Your task to perform on an android device: Open location settings Image 0: 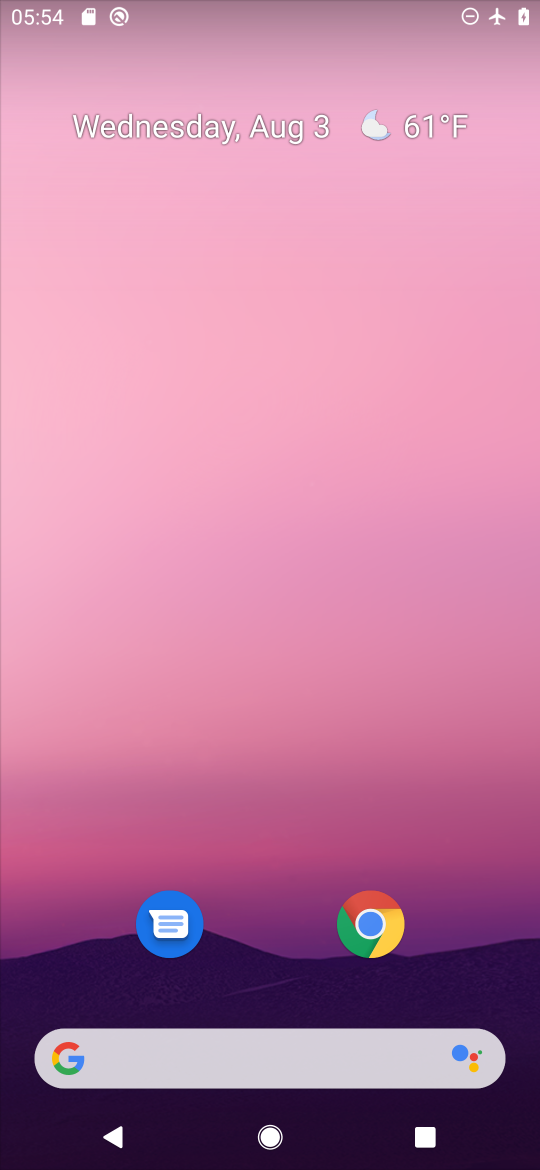
Step 0: drag from (285, 959) to (251, 200)
Your task to perform on an android device: Open location settings Image 1: 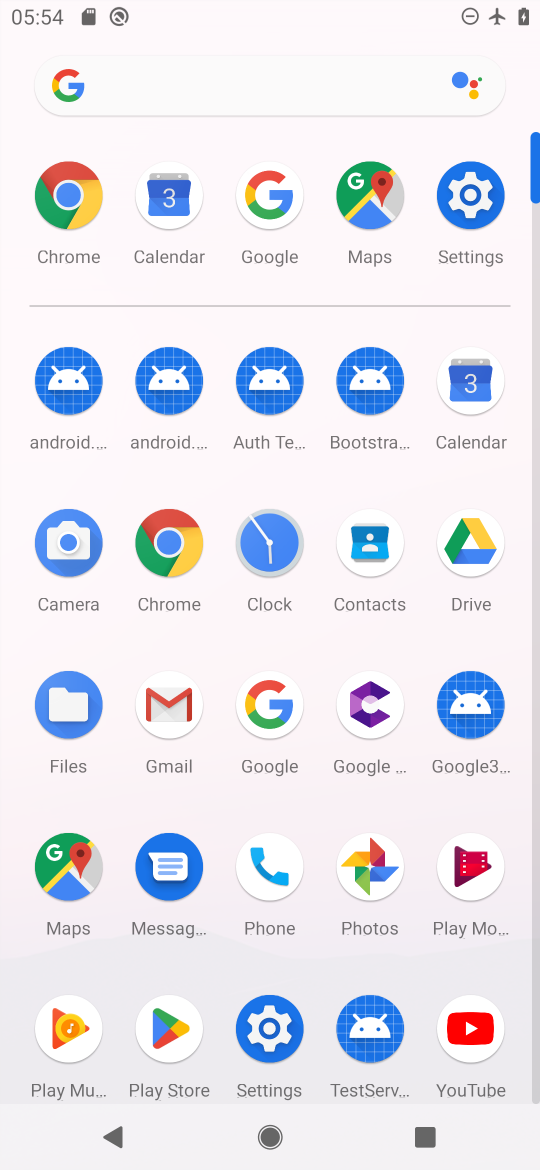
Step 1: click (503, 201)
Your task to perform on an android device: Open location settings Image 2: 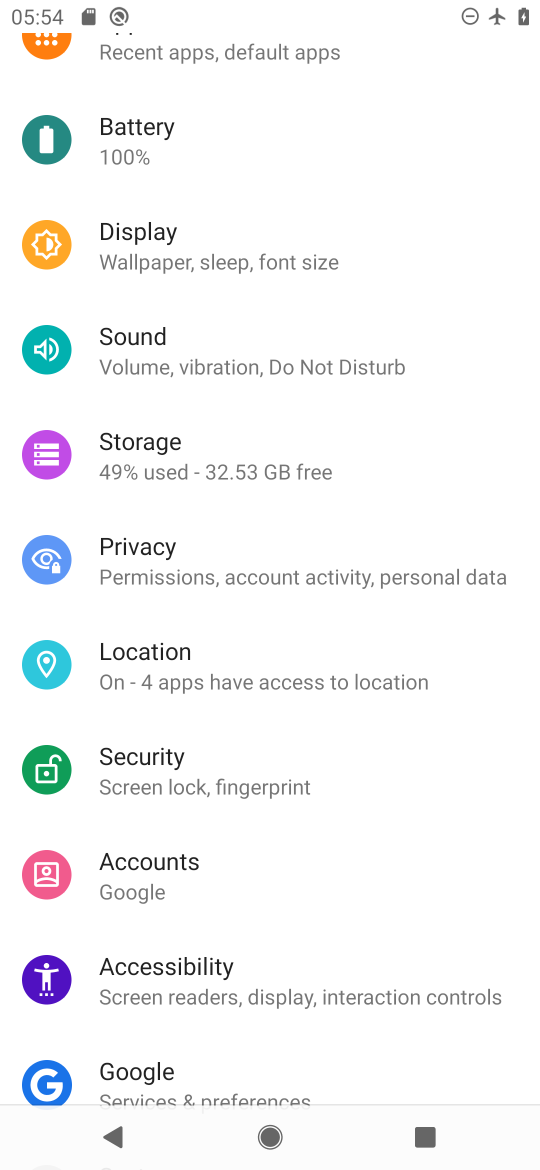
Step 2: click (198, 684)
Your task to perform on an android device: Open location settings Image 3: 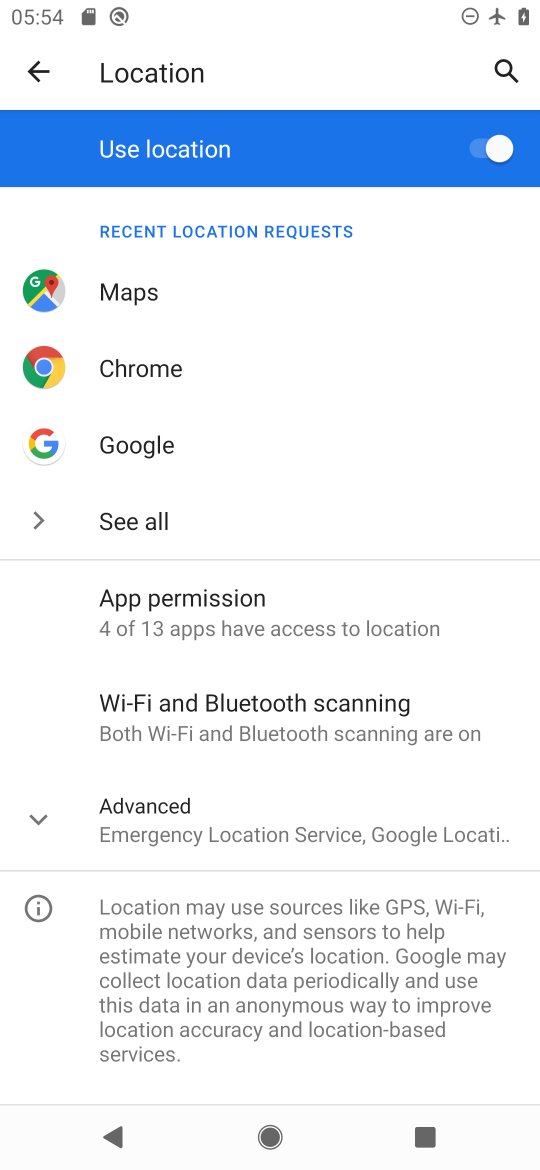
Step 3: task complete